Your task to perform on an android device: Open maps Image 0: 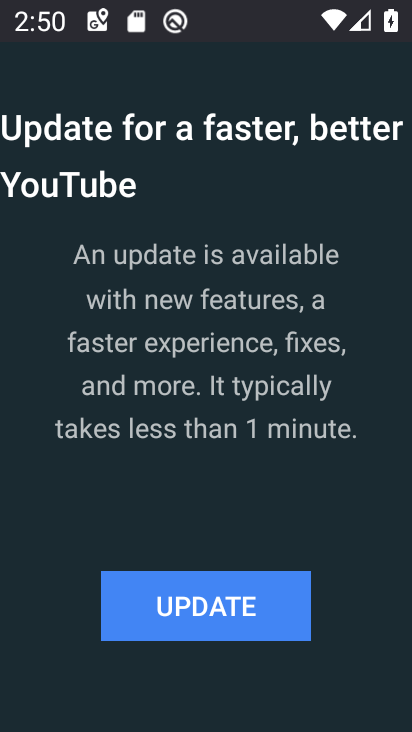
Step 0: press home button
Your task to perform on an android device: Open maps Image 1: 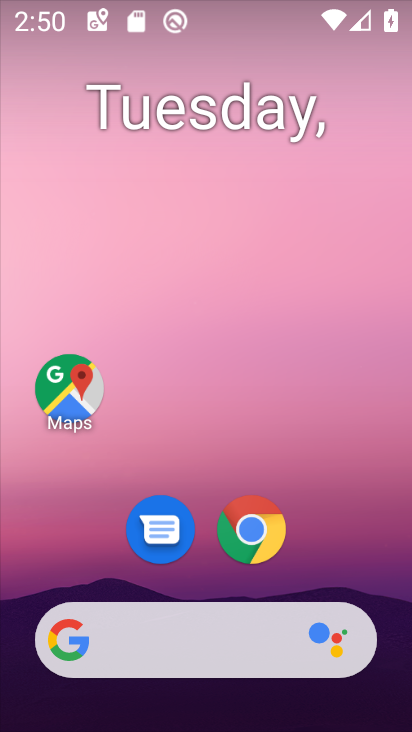
Step 1: click (72, 376)
Your task to perform on an android device: Open maps Image 2: 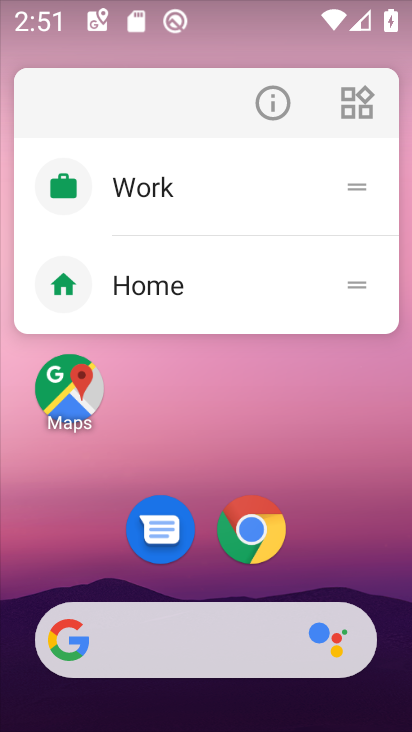
Step 2: click (84, 384)
Your task to perform on an android device: Open maps Image 3: 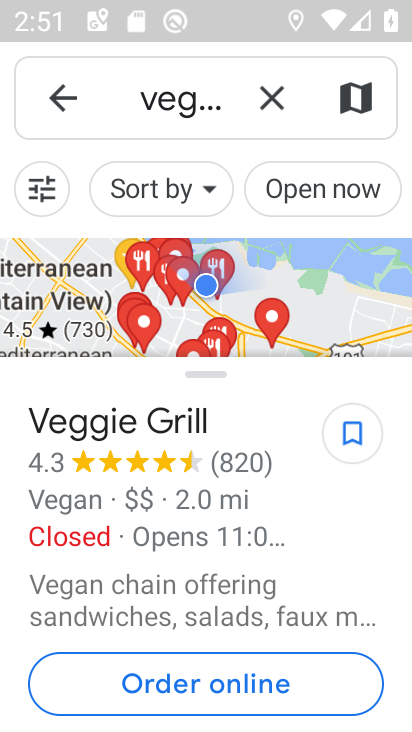
Step 3: task complete